Your task to perform on an android device: toggle pop-ups in chrome Image 0: 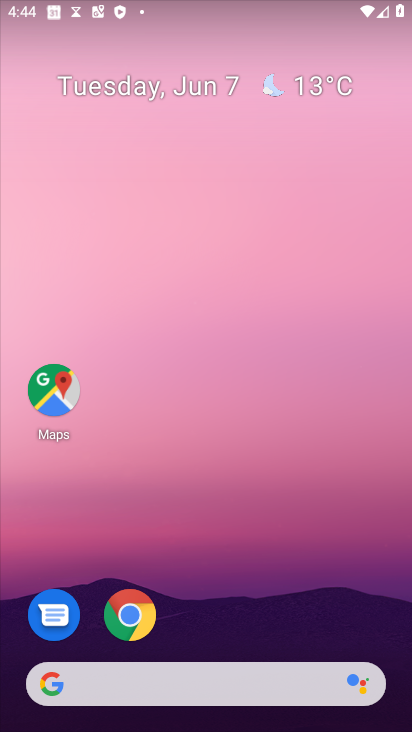
Step 0: drag from (234, 676) to (162, 214)
Your task to perform on an android device: toggle pop-ups in chrome Image 1: 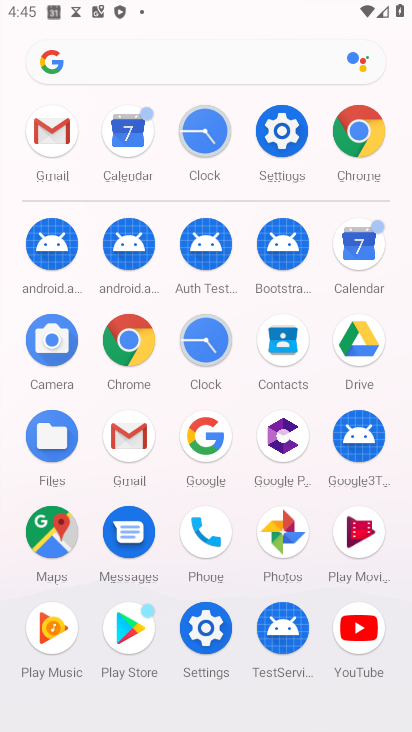
Step 1: click (361, 132)
Your task to perform on an android device: toggle pop-ups in chrome Image 2: 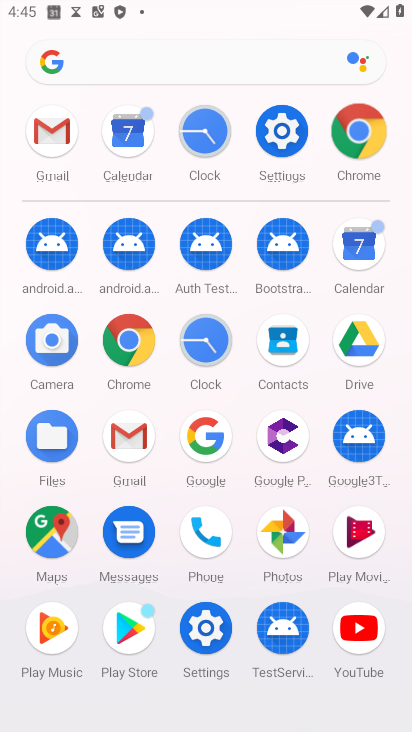
Step 2: click (361, 132)
Your task to perform on an android device: toggle pop-ups in chrome Image 3: 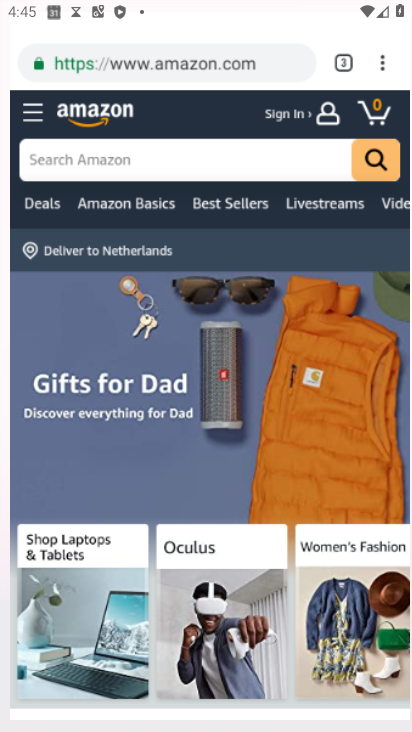
Step 3: click (361, 132)
Your task to perform on an android device: toggle pop-ups in chrome Image 4: 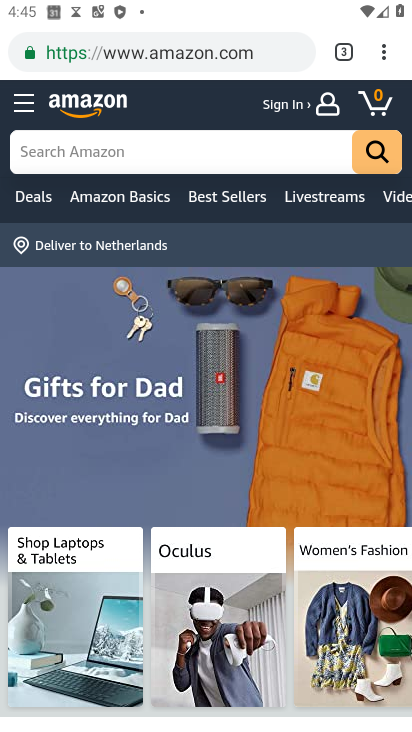
Step 4: drag from (381, 60) to (192, 658)
Your task to perform on an android device: toggle pop-ups in chrome Image 5: 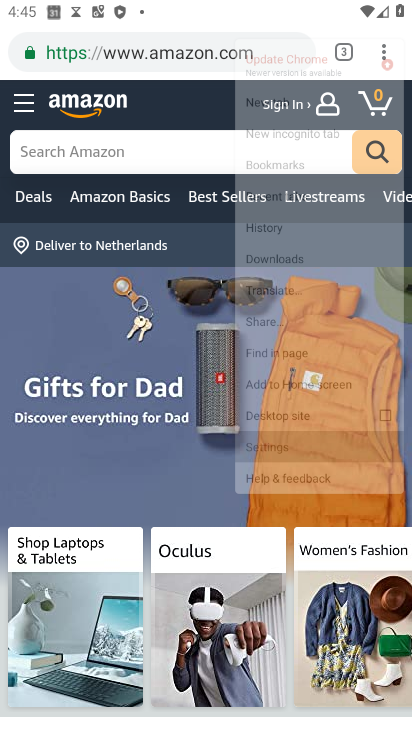
Step 5: click (193, 658)
Your task to perform on an android device: toggle pop-ups in chrome Image 6: 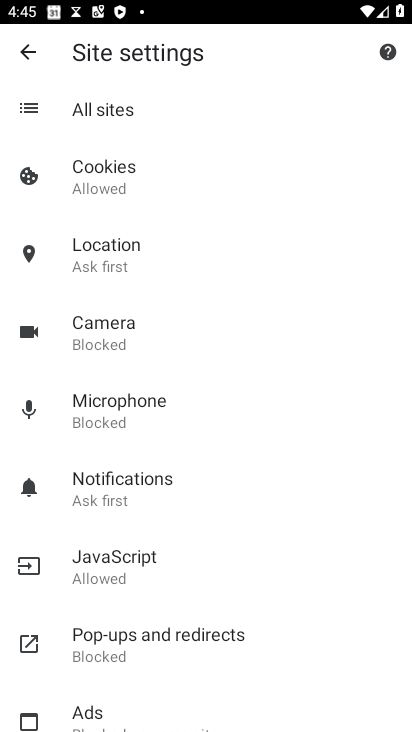
Step 6: click (106, 643)
Your task to perform on an android device: toggle pop-ups in chrome Image 7: 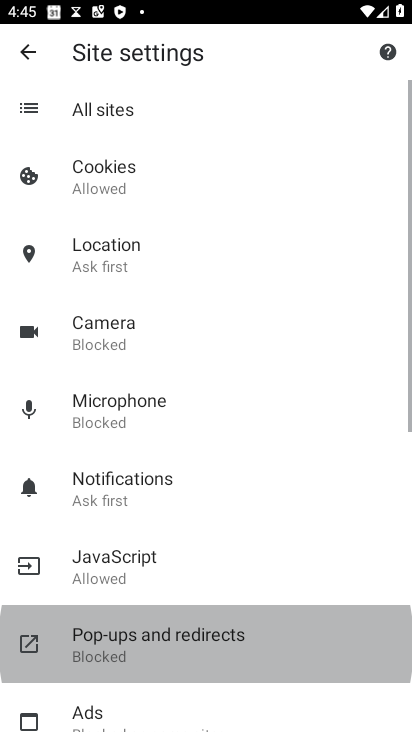
Step 7: click (106, 643)
Your task to perform on an android device: toggle pop-ups in chrome Image 8: 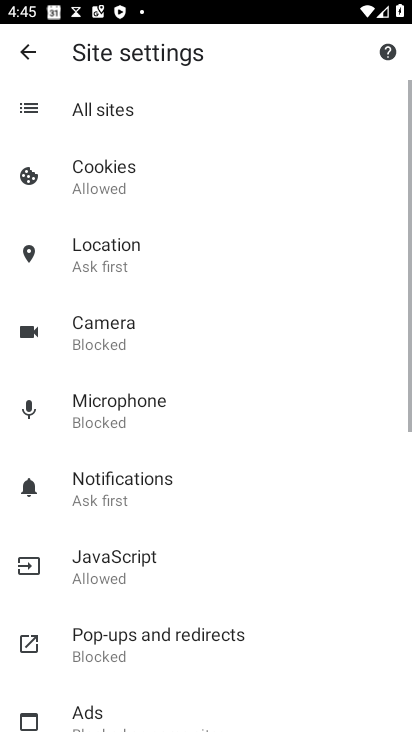
Step 8: click (107, 642)
Your task to perform on an android device: toggle pop-ups in chrome Image 9: 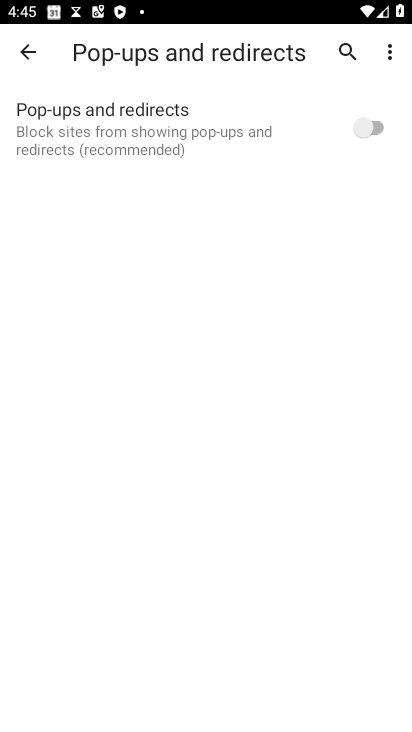
Step 9: click (360, 119)
Your task to perform on an android device: toggle pop-ups in chrome Image 10: 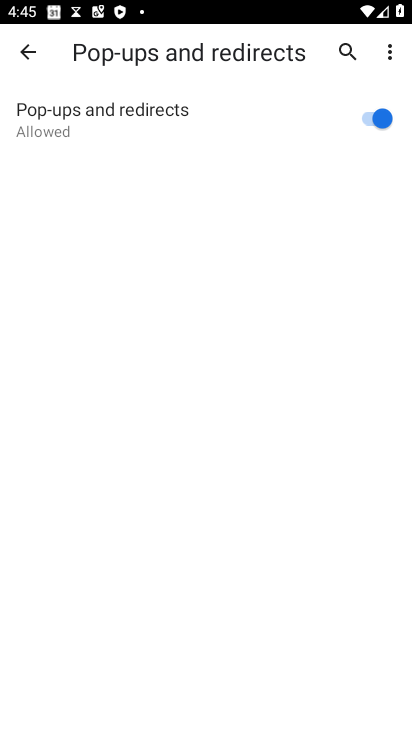
Step 10: task complete